Your task to perform on an android device: uninstall "Fetch Rewards" Image 0: 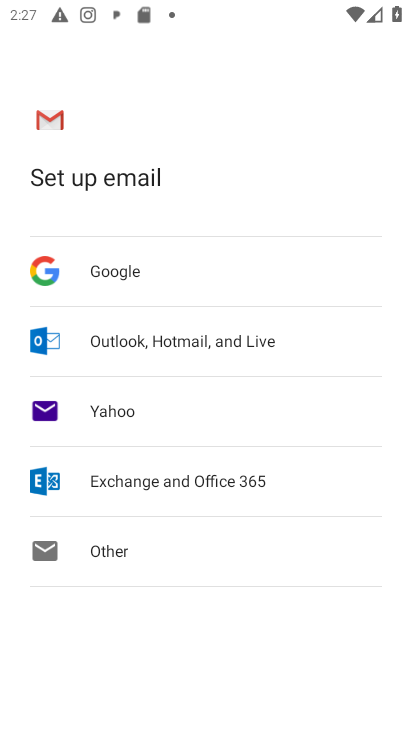
Step 0: press home button
Your task to perform on an android device: uninstall "Fetch Rewards" Image 1: 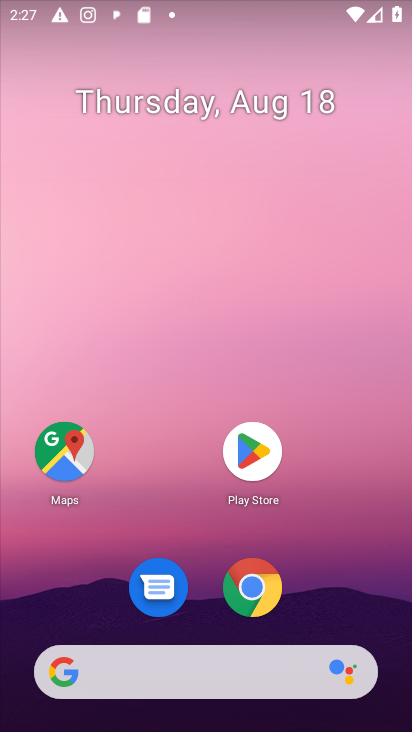
Step 1: click (250, 451)
Your task to perform on an android device: uninstall "Fetch Rewards" Image 2: 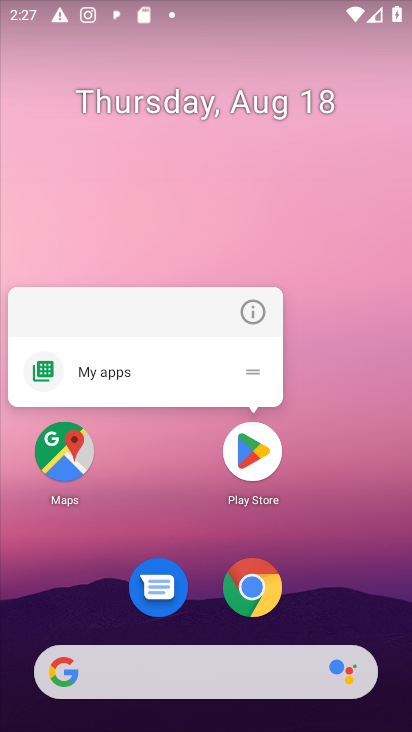
Step 2: click (250, 452)
Your task to perform on an android device: uninstall "Fetch Rewards" Image 3: 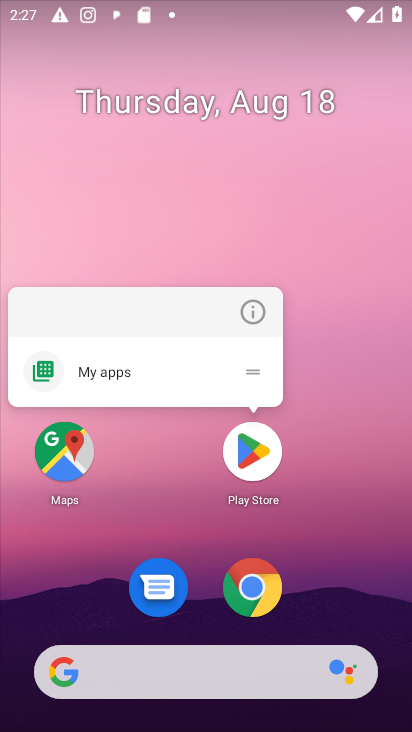
Step 3: click (250, 451)
Your task to perform on an android device: uninstall "Fetch Rewards" Image 4: 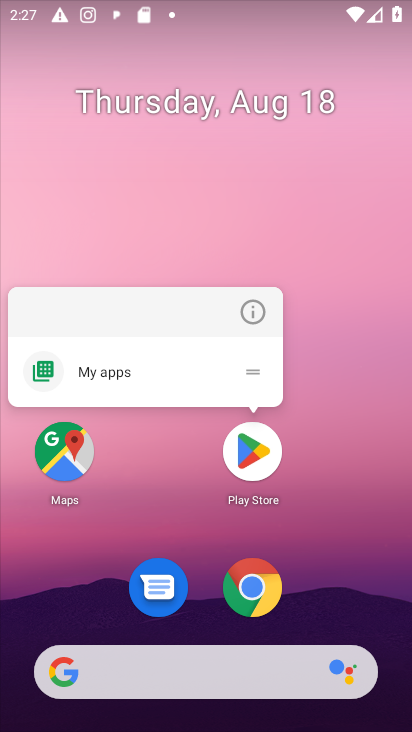
Step 4: click (250, 453)
Your task to perform on an android device: uninstall "Fetch Rewards" Image 5: 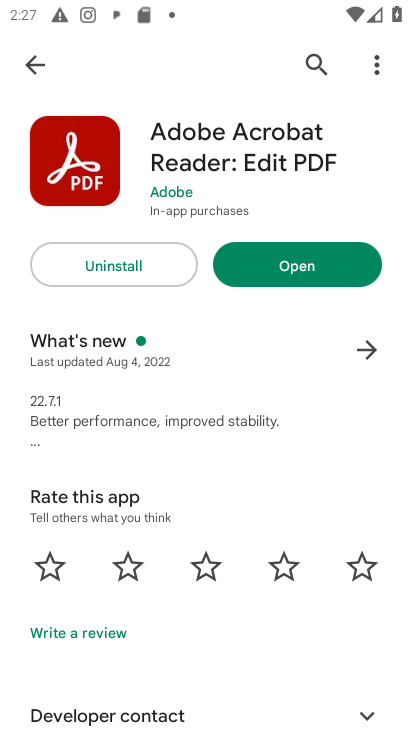
Step 5: click (318, 58)
Your task to perform on an android device: uninstall "Fetch Rewards" Image 6: 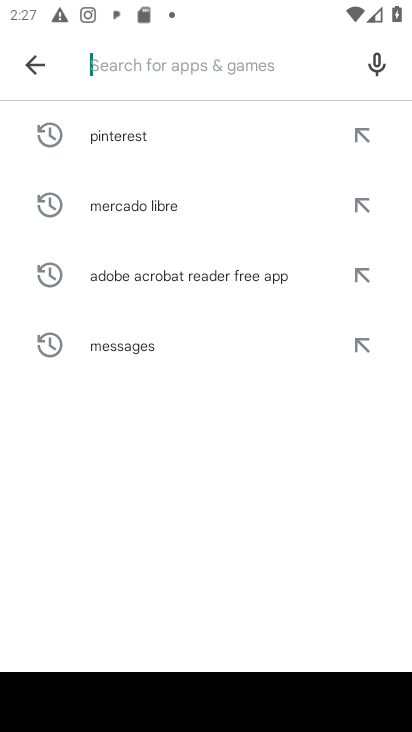
Step 6: type "Fetch Rewards"
Your task to perform on an android device: uninstall "Fetch Rewards" Image 7: 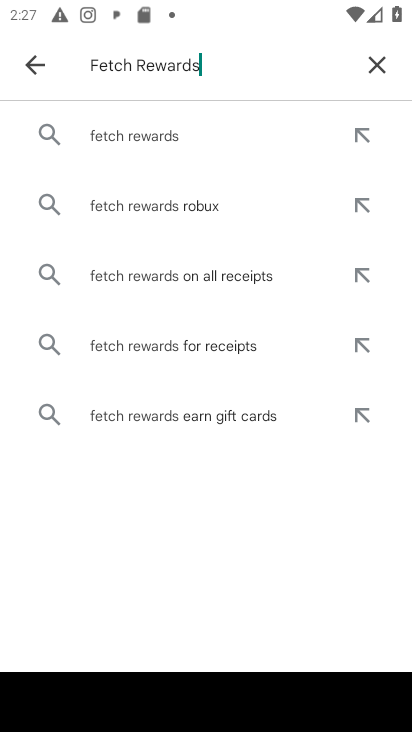
Step 7: click (115, 130)
Your task to perform on an android device: uninstall "Fetch Rewards" Image 8: 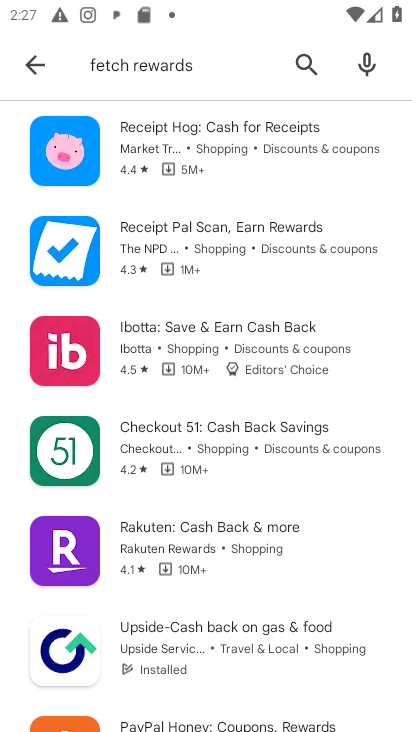
Step 8: task complete